Your task to perform on an android device: Open Maps and search for coffee Image 0: 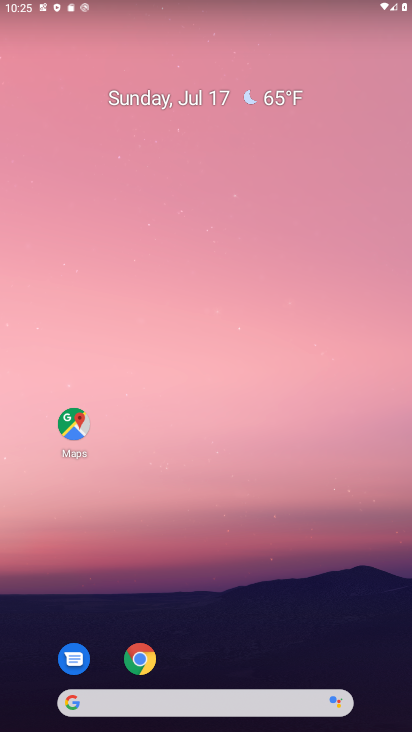
Step 0: click (73, 418)
Your task to perform on an android device: Open Maps and search for coffee Image 1: 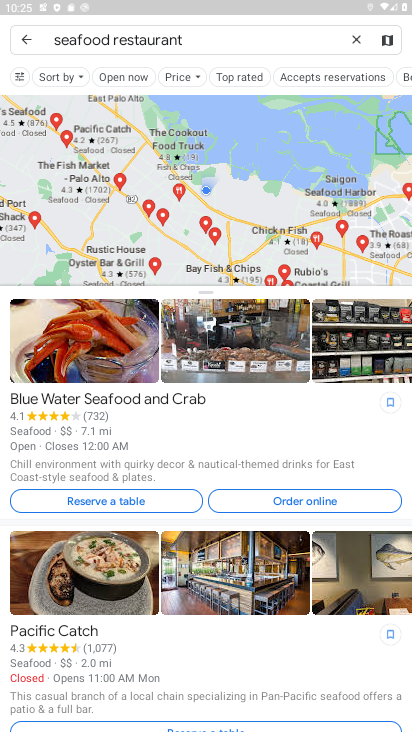
Step 1: click (354, 48)
Your task to perform on an android device: Open Maps and search for coffee Image 2: 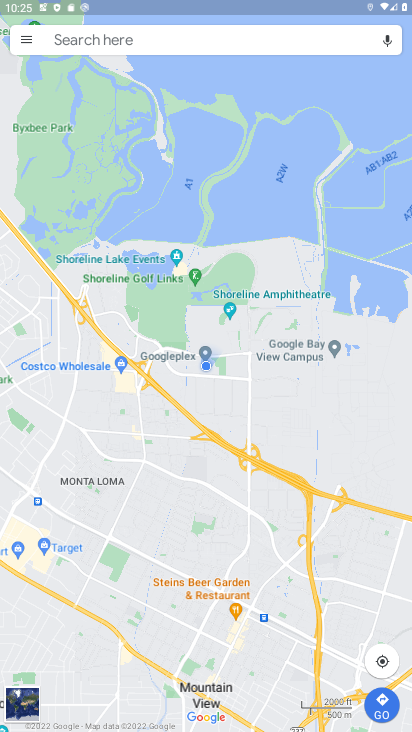
Step 2: click (187, 44)
Your task to perform on an android device: Open Maps and search for coffee Image 3: 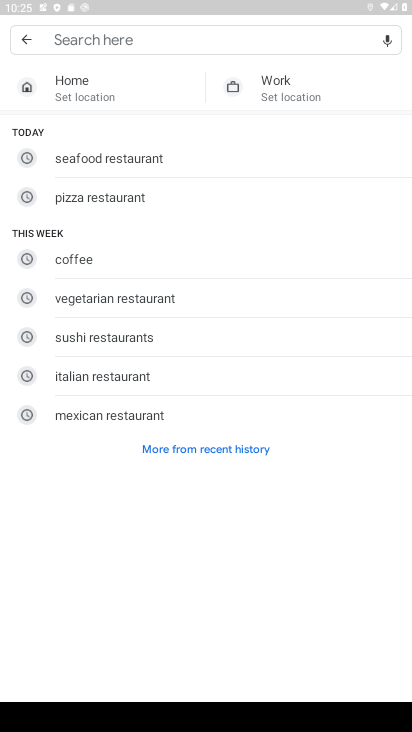
Step 3: click (101, 251)
Your task to perform on an android device: Open Maps and search for coffee Image 4: 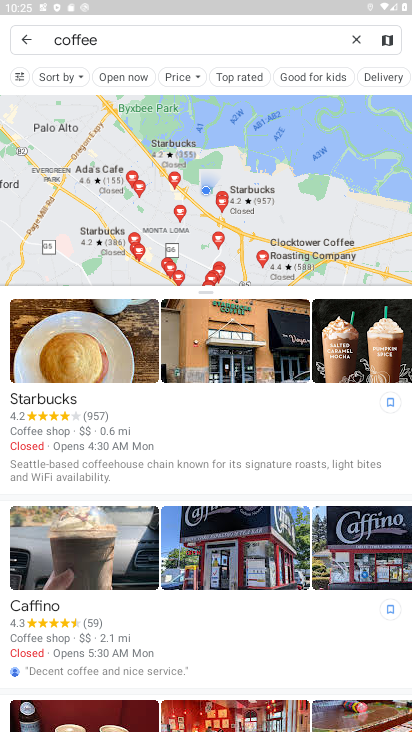
Step 4: task complete